Your task to perform on an android device: Do I have any events today? Image 0: 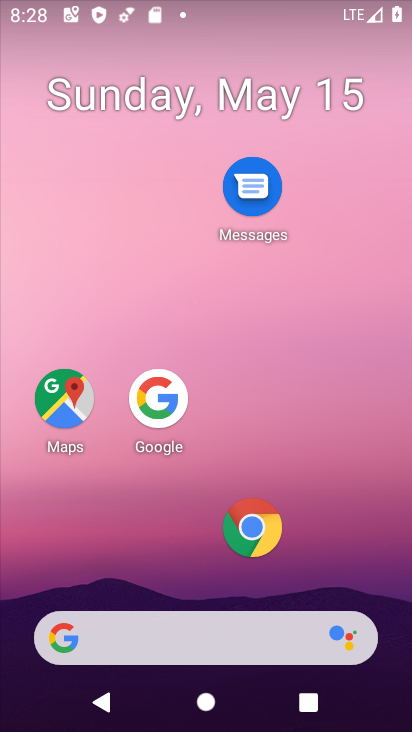
Step 0: press home button
Your task to perform on an android device: Do I have any events today? Image 1: 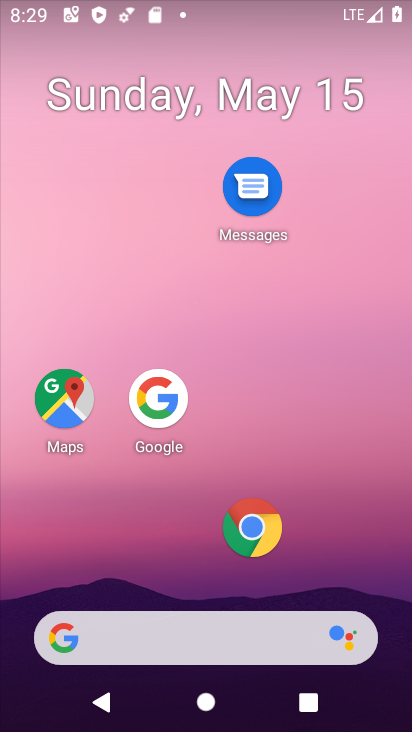
Step 1: drag from (190, 629) to (322, 232)
Your task to perform on an android device: Do I have any events today? Image 2: 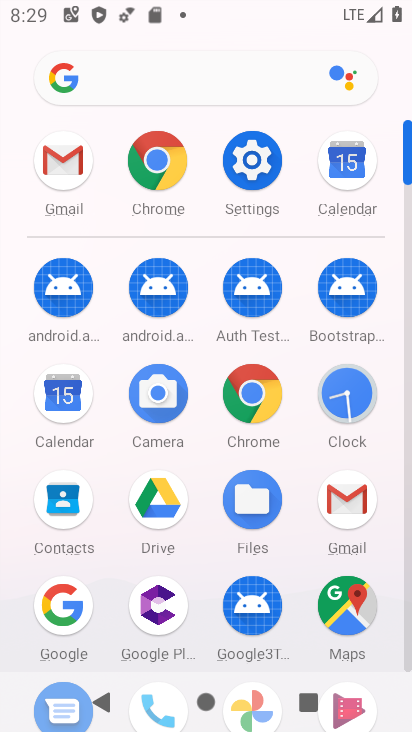
Step 2: click (63, 400)
Your task to perform on an android device: Do I have any events today? Image 3: 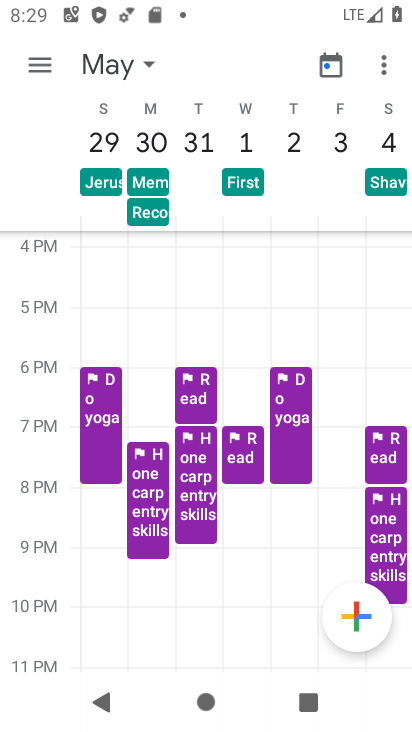
Step 3: click (115, 62)
Your task to perform on an android device: Do I have any events today? Image 4: 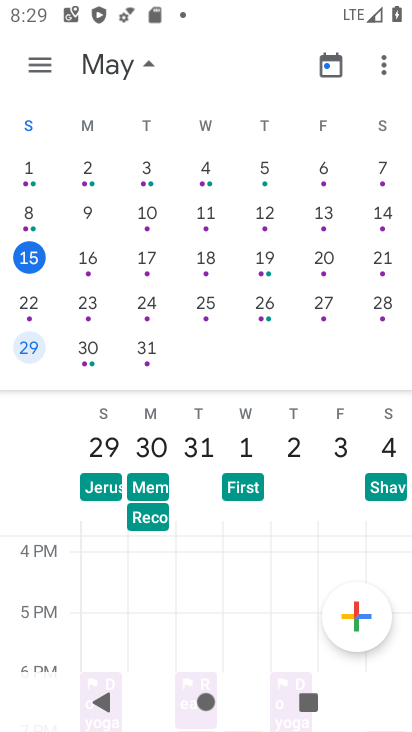
Step 4: click (38, 263)
Your task to perform on an android device: Do I have any events today? Image 5: 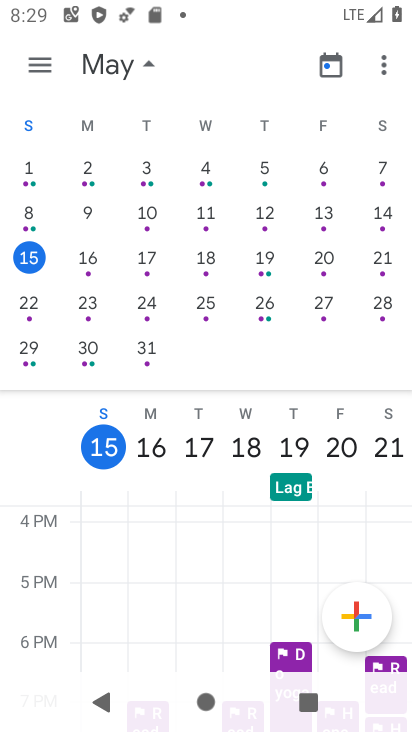
Step 5: click (46, 65)
Your task to perform on an android device: Do I have any events today? Image 6: 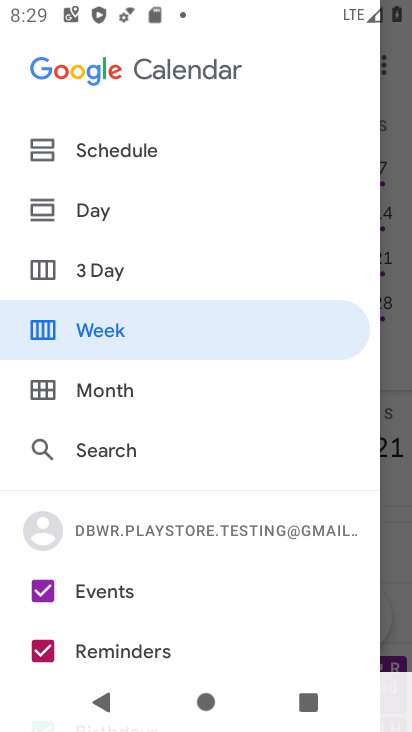
Step 6: click (95, 212)
Your task to perform on an android device: Do I have any events today? Image 7: 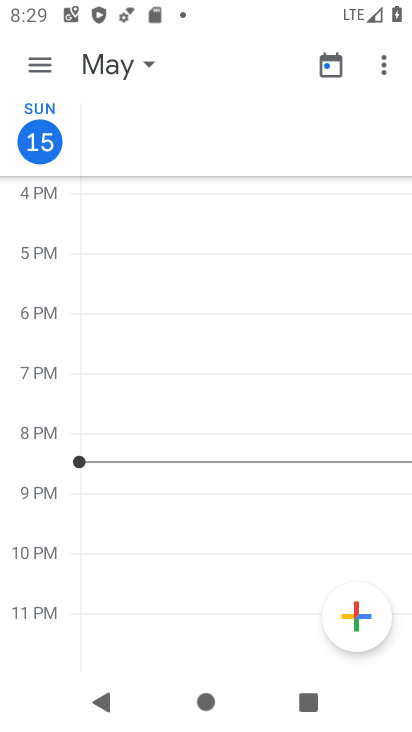
Step 7: click (42, 68)
Your task to perform on an android device: Do I have any events today? Image 8: 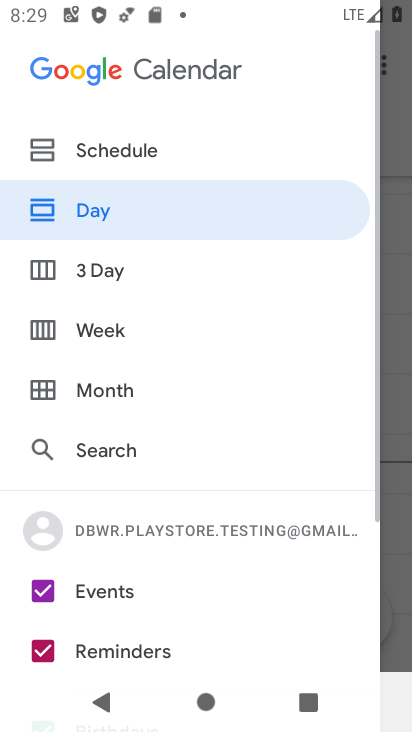
Step 8: click (108, 145)
Your task to perform on an android device: Do I have any events today? Image 9: 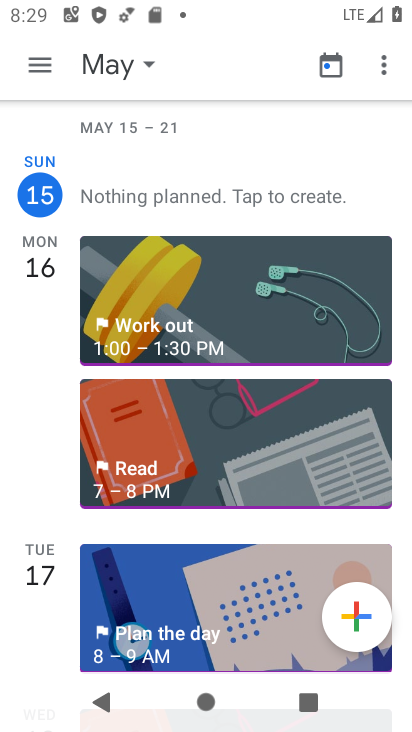
Step 9: task complete